Your task to perform on an android device: check google app version Image 0: 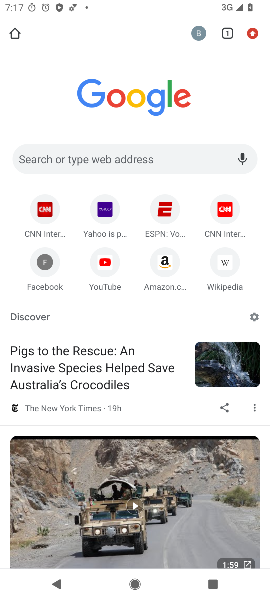
Step 0: press home button
Your task to perform on an android device: check google app version Image 1: 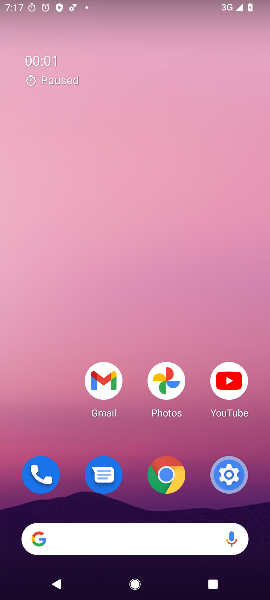
Step 1: drag from (213, 496) to (139, 19)
Your task to perform on an android device: check google app version Image 2: 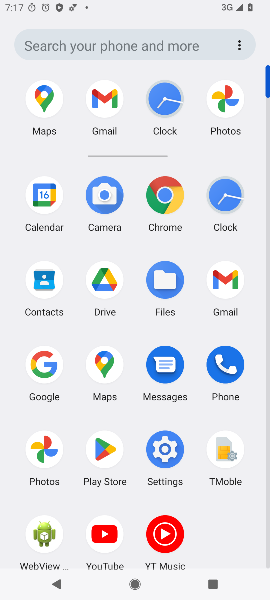
Step 2: click (35, 365)
Your task to perform on an android device: check google app version Image 3: 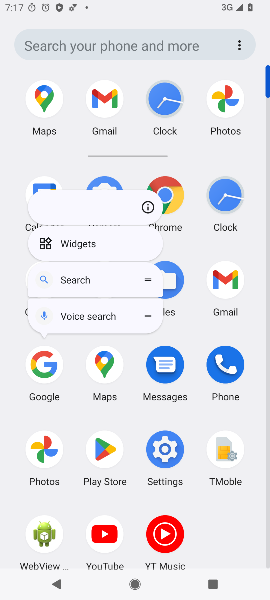
Step 3: click (144, 209)
Your task to perform on an android device: check google app version Image 4: 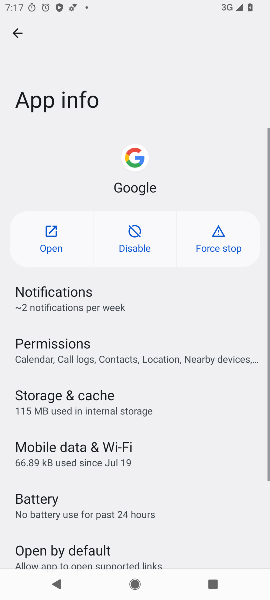
Step 4: task complete